Your task to perform on an android device: Find coffee shops on Maps Image 0: 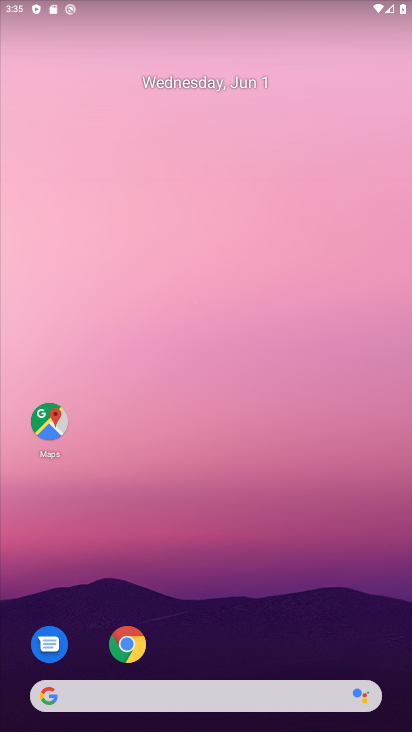
Step 0: click (56, 416)
Your task to perform on an android device: Find coffee shops on Maps Image 1: 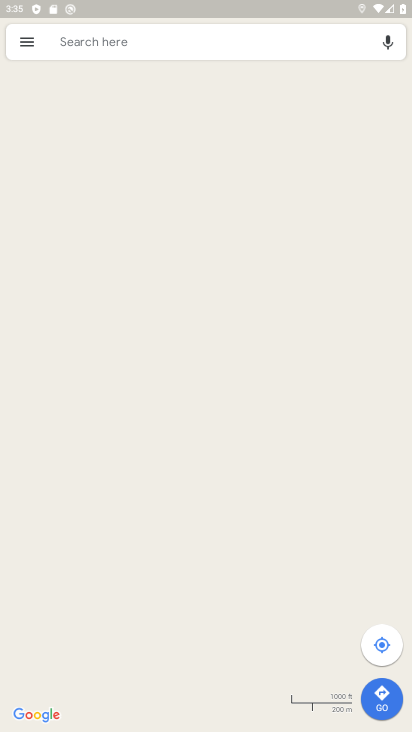
Step 1: click (220, 47)
Your task to perform on an android device: Find coffee shops on Maps Image 2: 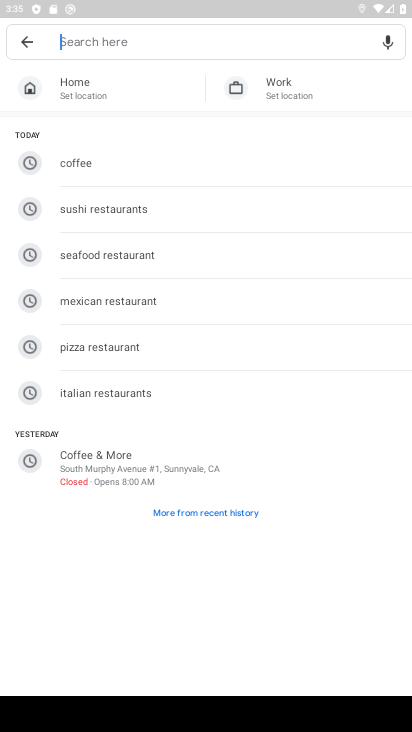
Step 2: type " coffee shops"
Your task to perform on an android device: Find coffee shops on Maps Image 3: 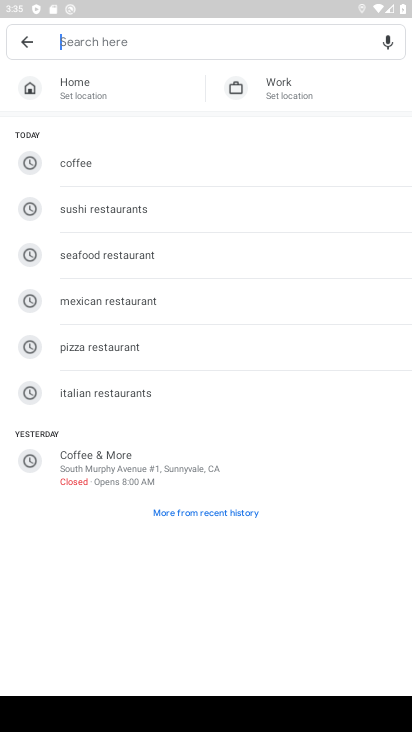
Step 3: click (138, 37)
Your task to perform on an android device: Find coffee shops on Maps Image 4: 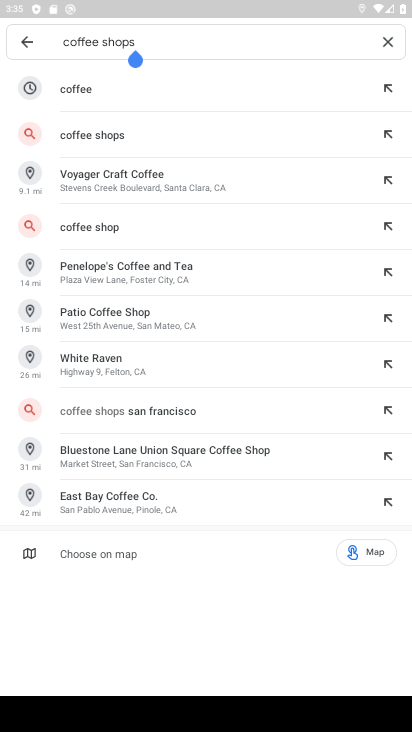
Step 4: click (98, 132)
Your task to perform on an android device: Find coffee shops on Maps Image 5: 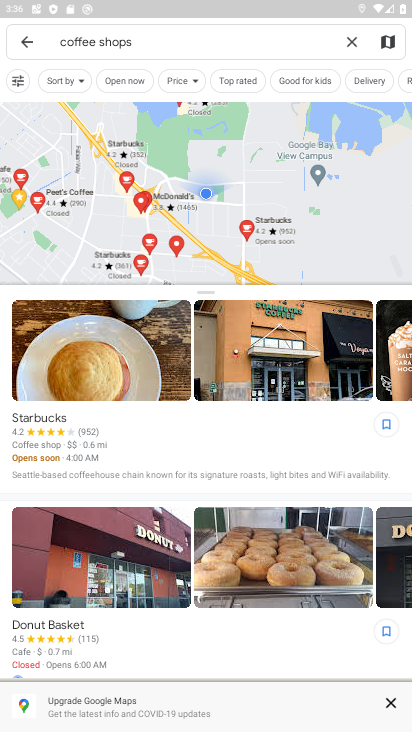
Step 5: task complete